Your task to perform on an android device: Show me productivity apps on the Play Store Image 0: 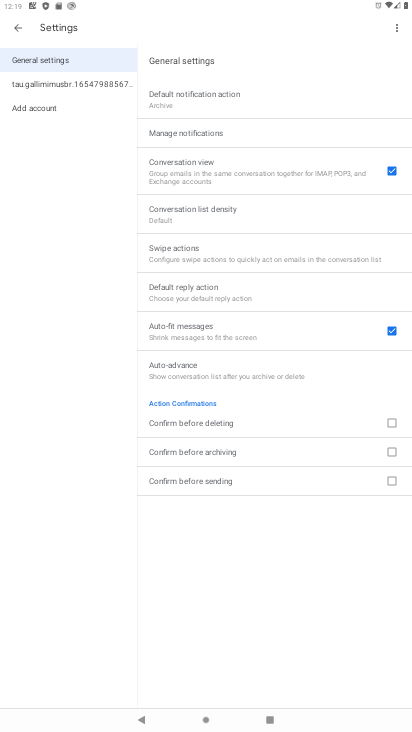
Step 0: press home button
Your task to perform on an android device: Show me productivity apps on the Play Store Image 1: 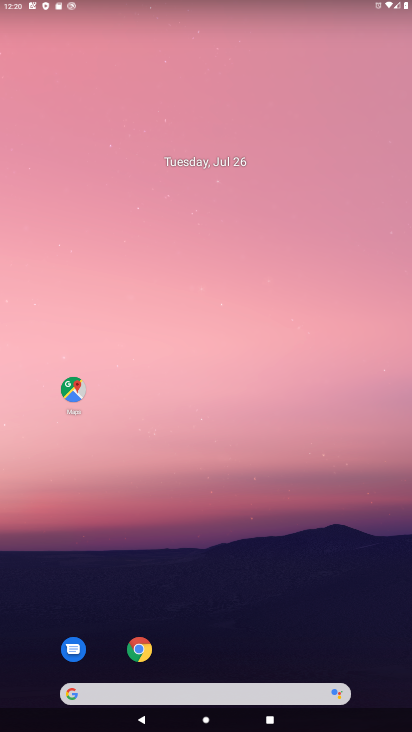
Step 1: drag from (175, 716) to (187, 60)
Your task to perform on an android device: Show me productivity apps on the Play Store Image 2: 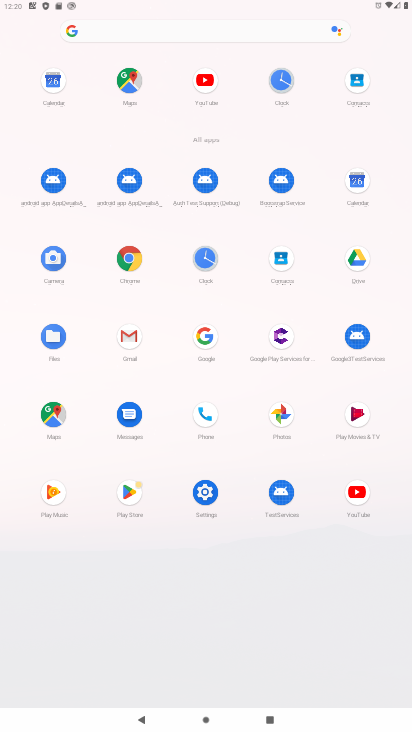
Step 2: click (123, 491)
Your task to perform on an android device: Show me productivity apps on the Play Store Image 3: 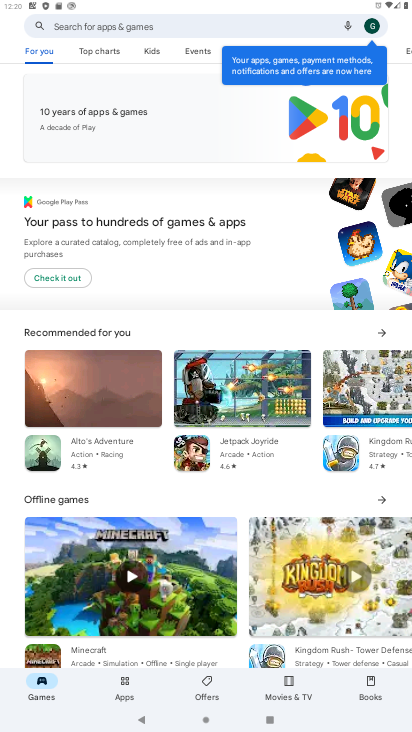
Step 3: click (120, 689)
Your task to perform on an android device: Show me productivity apps on the Play Store Image 4: 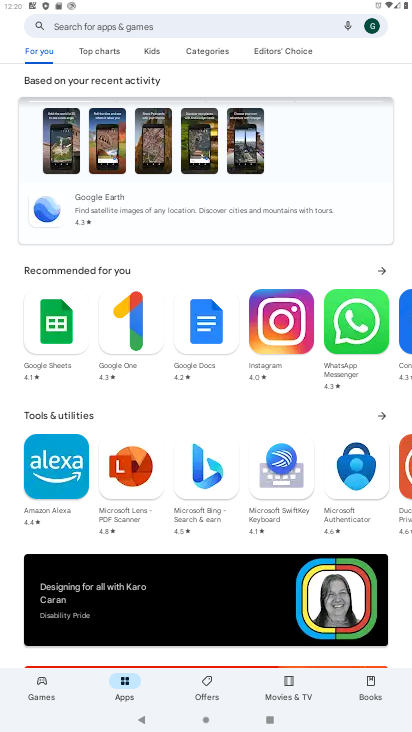
Step 4: click (208, 51)
Your task to perform on an android device: Show me productivity apps on the Play Store Image 5: 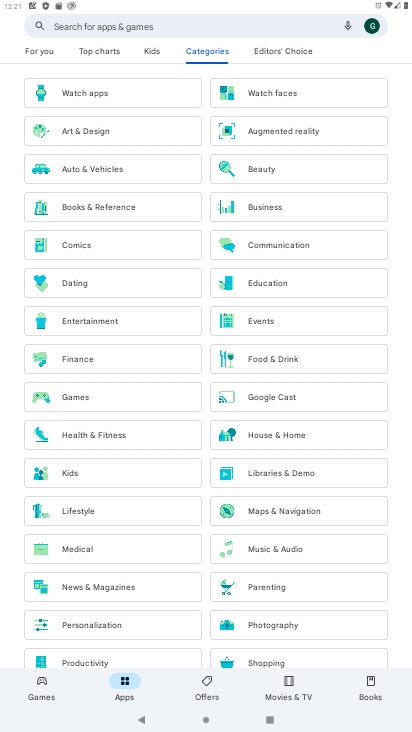
Step 5: click (103, 657)
Your task to perform on an android device: Show me productivity apps on the Play Store Image 6: 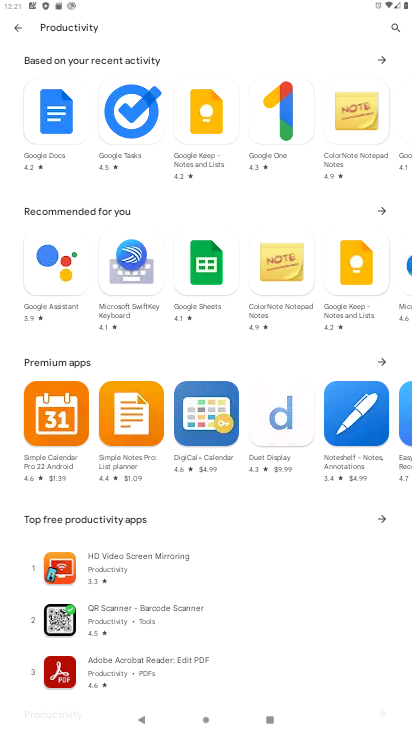
Step 6: task complete